Your task to perform on an android device: Go to Maps Image 0: 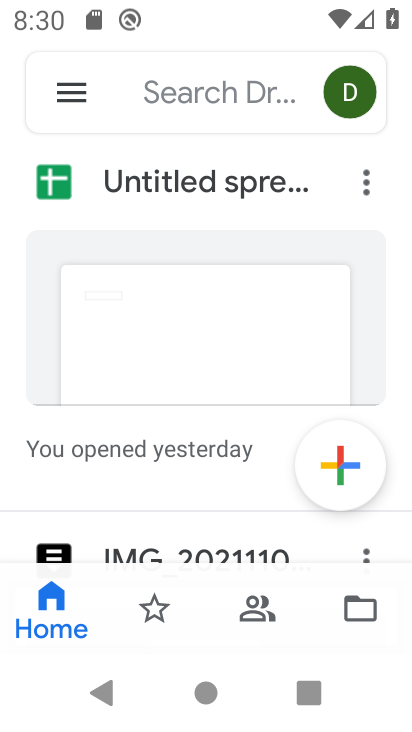
Step 0: press home button
Your task to perform on an android device: Go to Maps Image 1: 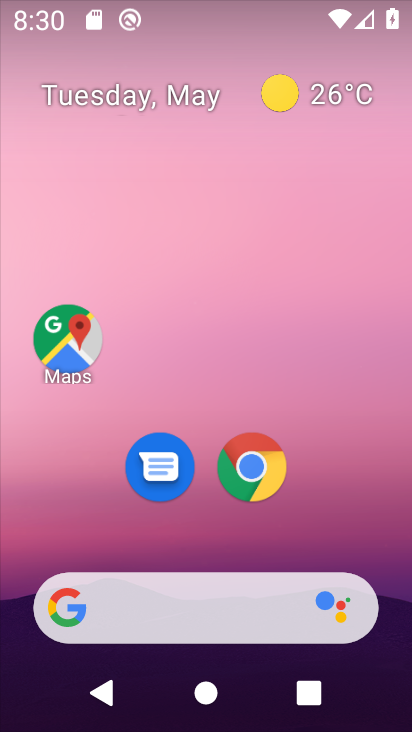
Step 1: click (68, 350)
Your task to perform on an android device: Go to Maps Image 2: 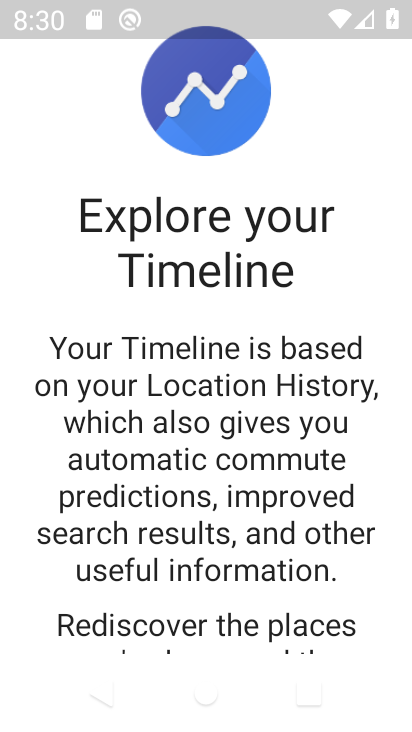
Step 2: task complete